Your task to perform on an android device: Open Google Maps Image 0: 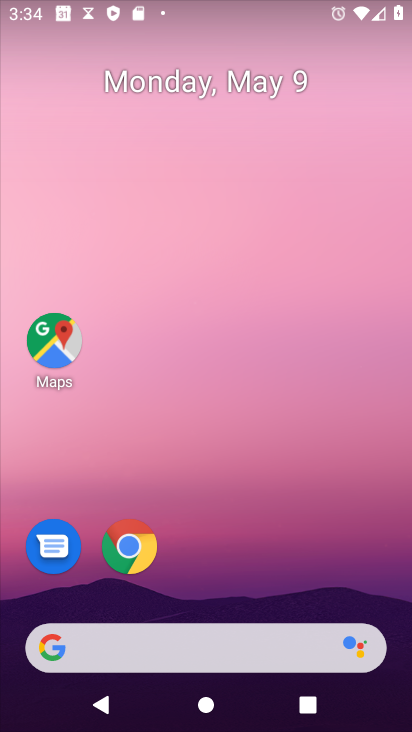
Step 0: drag from (307, 514) to (255, 123)
Your task to perform on an android device: Open Google Maps Image 1: 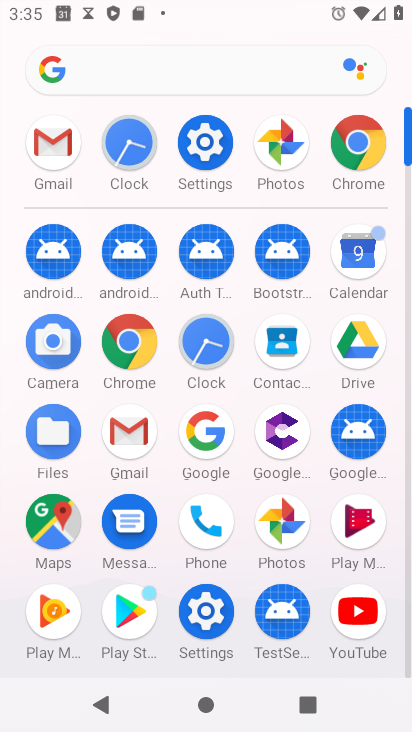
Step 1: click (61, 527)
Your task to perform on an android device: Open Google Maps Image 2: 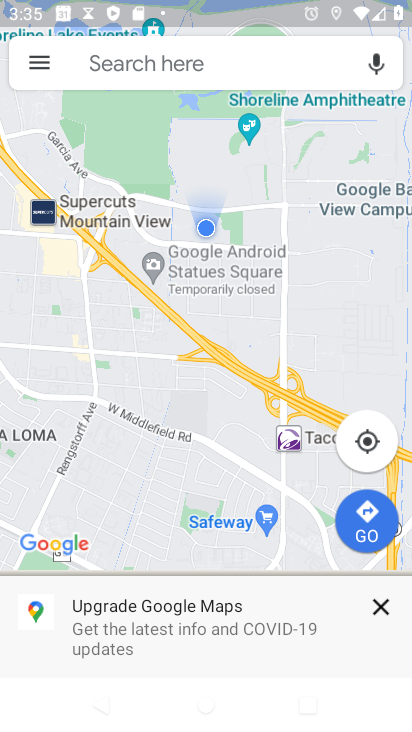
Step 2: task complete